Your task to perform on an android device: manage bookmarks in the chrome app Image 0: 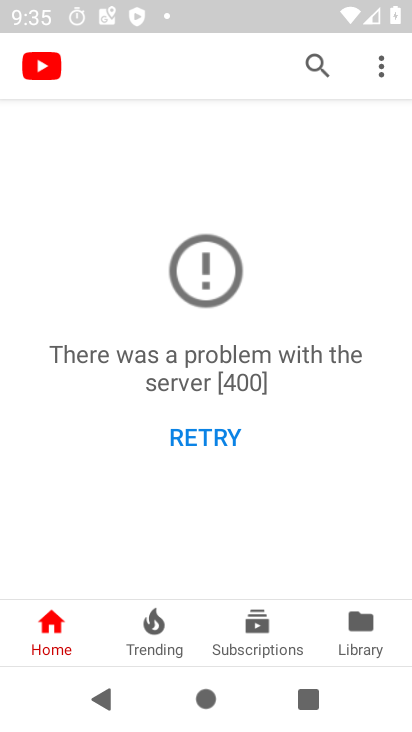
Step 0: press home button
Your task to perform on an android device: manage bookmarks in the chrome app Image 1: 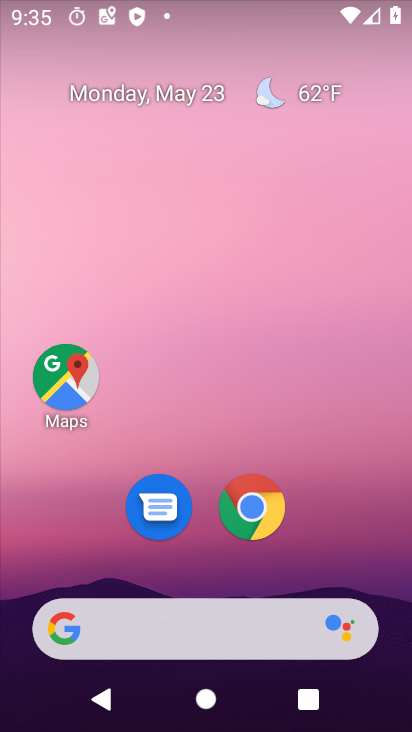
Step 1: click (254, 505)
Your task to perform on an android device: manage bookmarks in the chrome app Image 2: 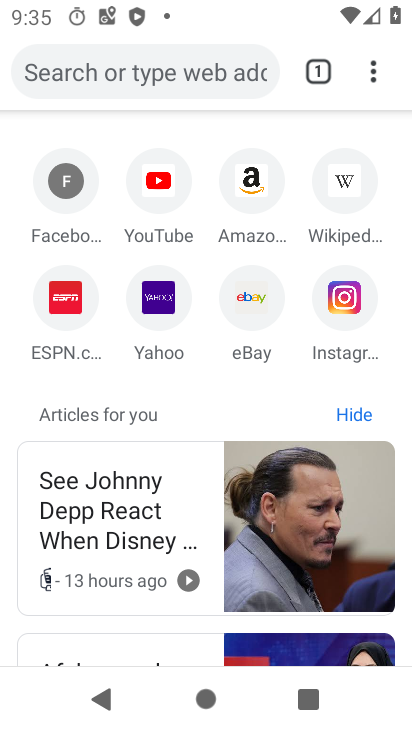
Step 2: click (372, 70)
Your task to perform on an android device: manage bookmarks in the chrome app Image 3: 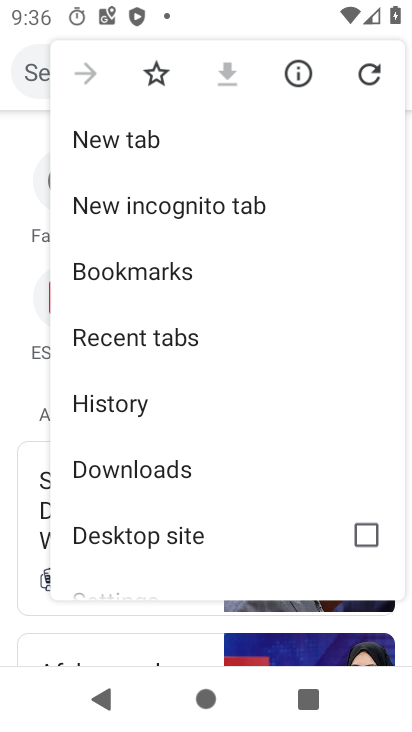
Step 3: click (169, 270)
Your task to perform on an android device: manage bookmarks in the chrome app Image 4: 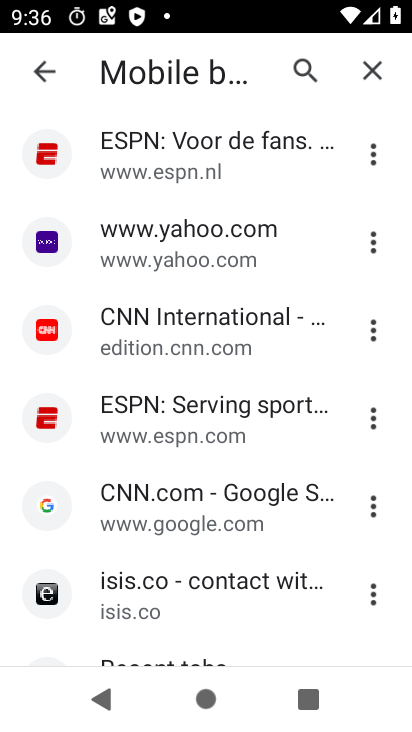
Step 4: click (373, 156)
Your task to perform on an android device: manage bookmarks in the chrome app Image 5: 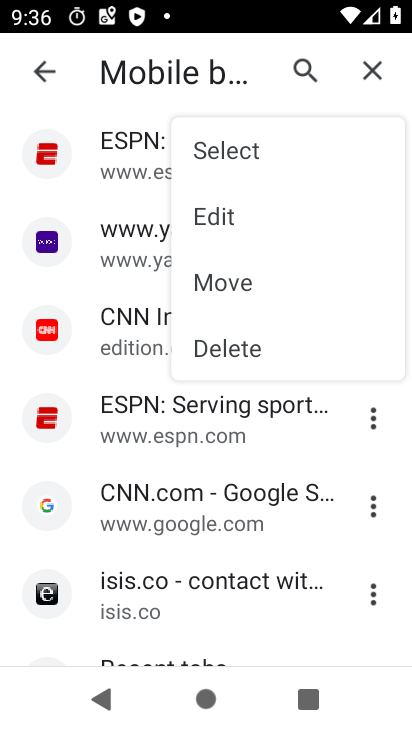
Step 5: click (227, 294)
Your task to perform on an android device: manage bookmarks in the chrome app Image 6: 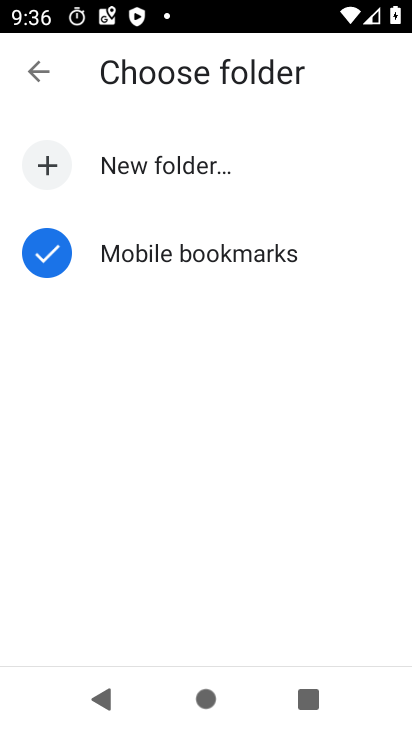
Step 6: click (218, 258)
Your task to perform on an android device: manage bookmarks in the chrome app Image 7: 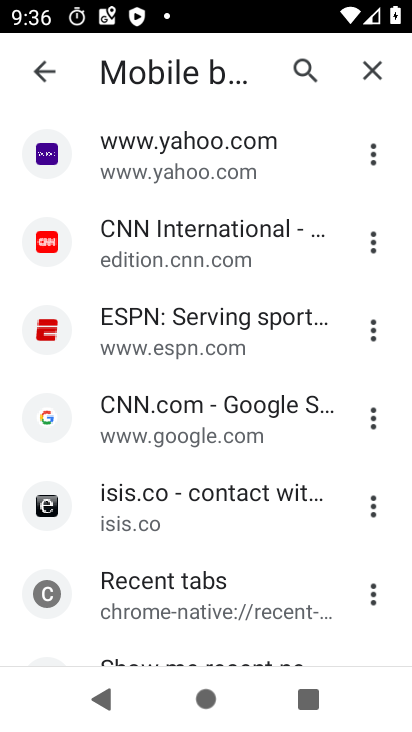
Step 7: task complete